Your task to perform on an android device: turn off sleep mode Image 0: 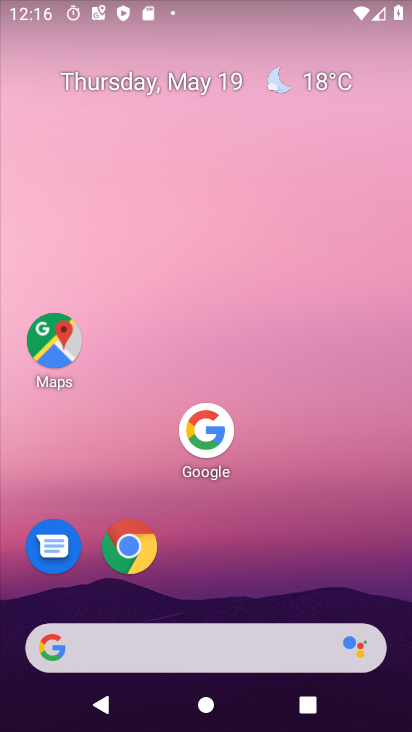
Step 0: drag from (237, 443) to (237, 91)
Your task to perform on an android device: turn off sleep mode Image 1: 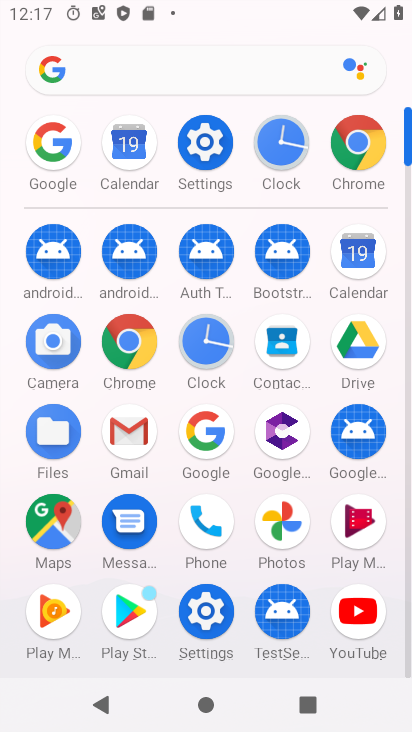
Step 1: click (209, 132)
Your task to perform on an android device: turn off sleep mode Image 2: 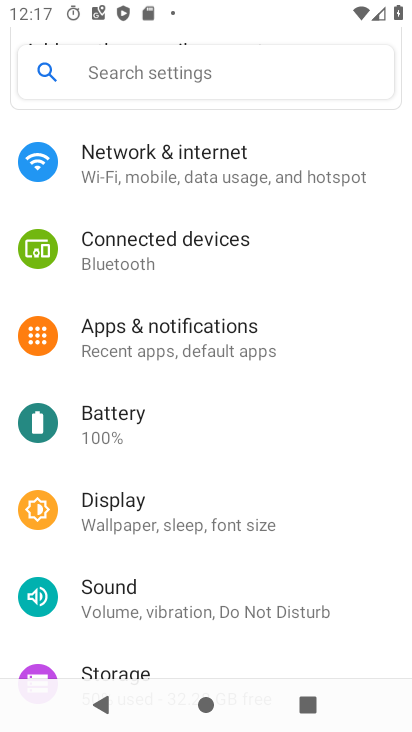
Step 2: click (260, 510)
Your task to perform on an android device: turn off sleep mode Image 3: 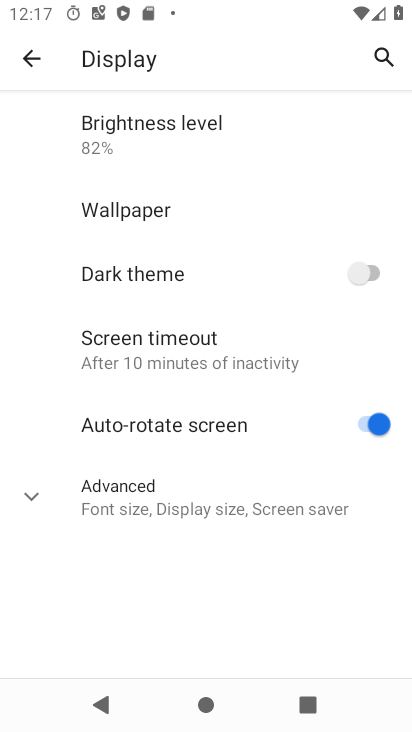
Step 3: click (192, 340)
Your task to perform on an android device: turn off sleep mode Image 4: 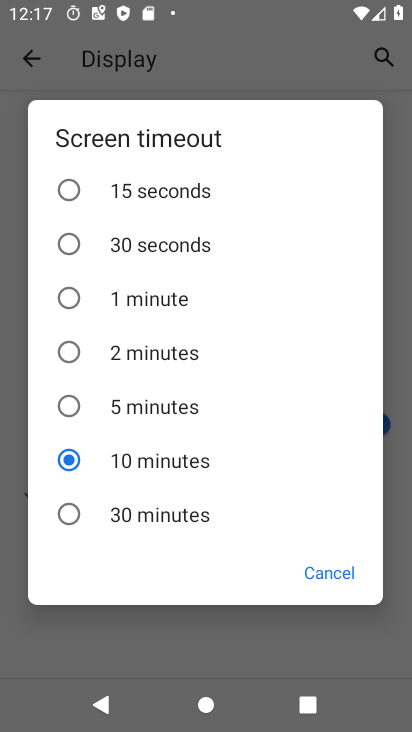
Step 4: task complete